Your task to perform on an android device: open a bookmark in the chrome app Image 0: 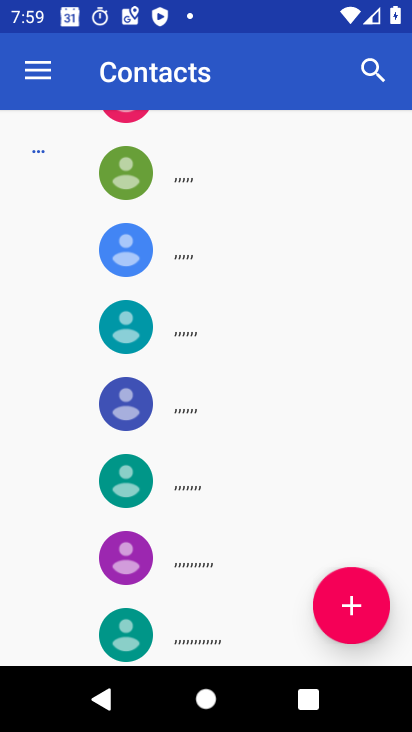
Step 0: click (39, 374)
Your task to perform on an android device: open a bookmark in the chrome app Image 1: 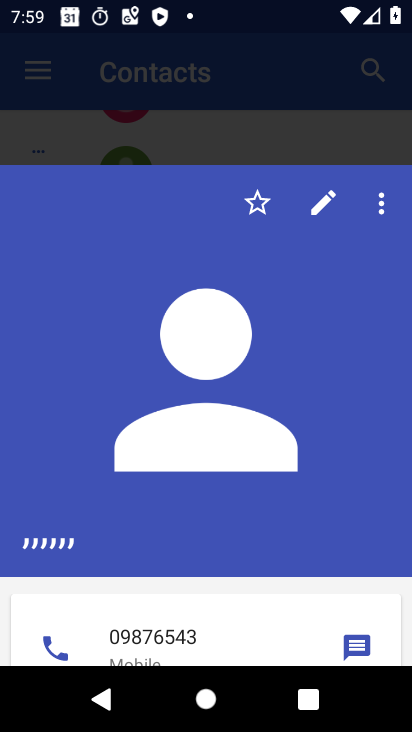
Step 1: press home button
Your task to perform on an android device: open a bookmark in the chrome app Image 2: 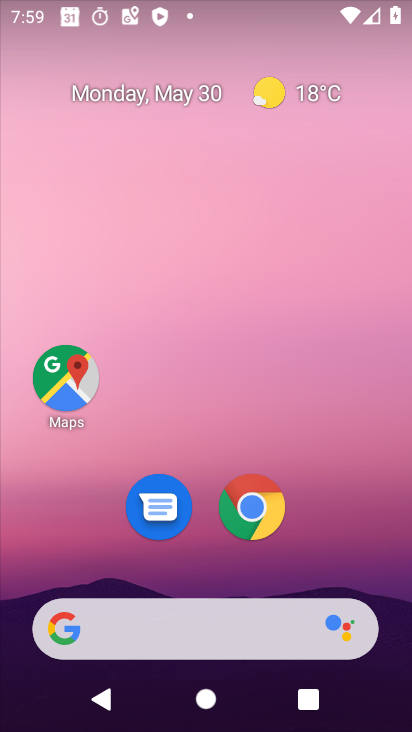
Step 2: drag from (340, 509) to (351, 129)
Your task to perform on an android device: open a bookmark in the chrome app Image 3: 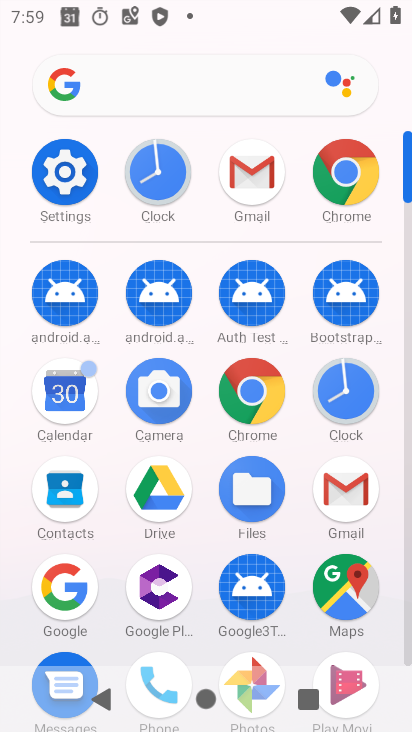
Step 3: click (269, 404)
Your task to perform on an android device: open a bookmark in the chrome app Image 4: 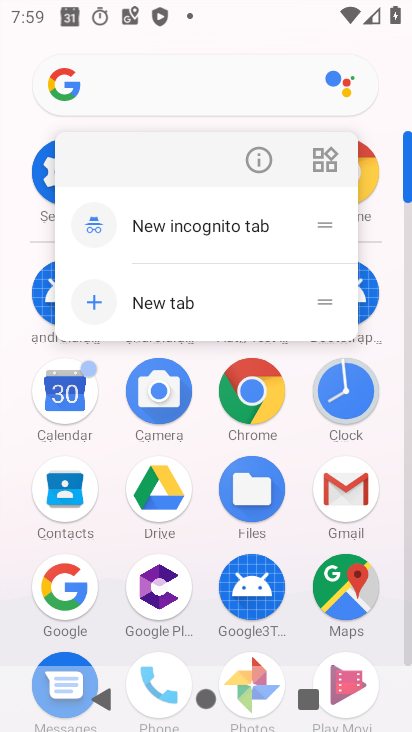
Step 4: click (264, 415)
Your task to perform on an android device: open a bookmark in the chrome app Image 5: 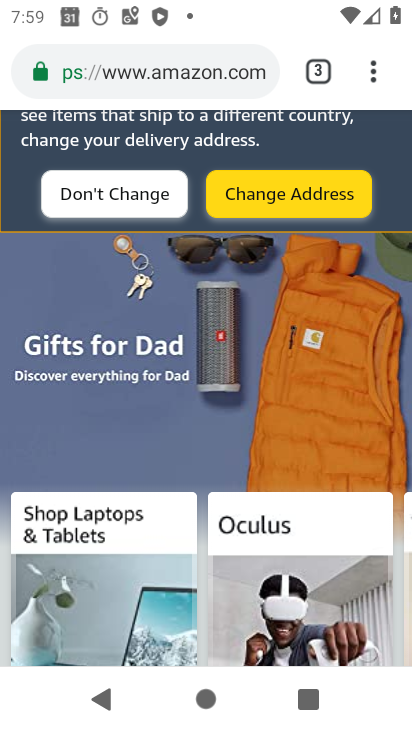
Step 5: task complete